Your task to perform on an android device: open app "Google Translate" (install if not already installed) Image 0: 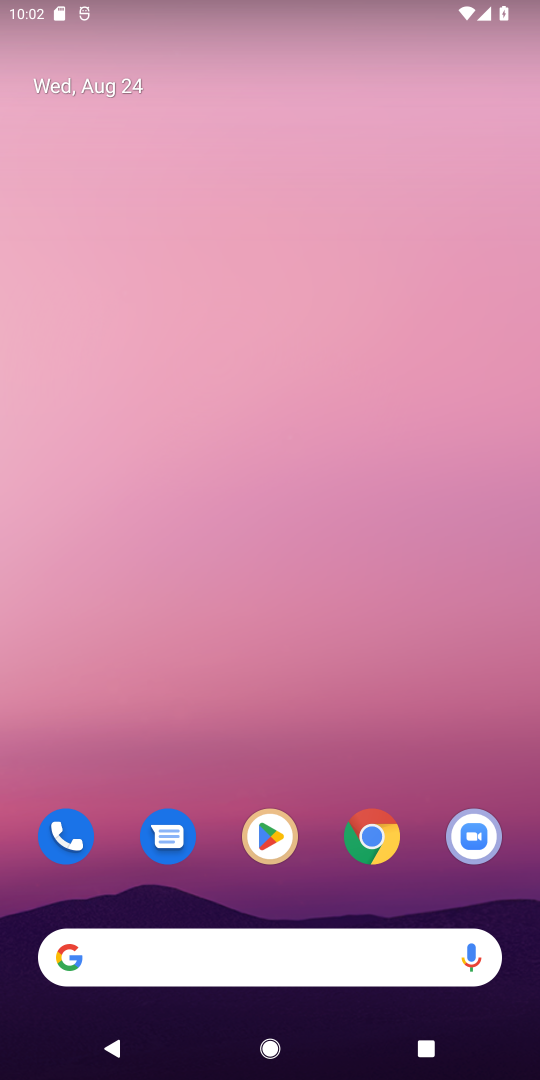
Step 0: click (274, 847)
Your task to perform on an android device: open app "Google Translate" (install if not already installed) Image 1: 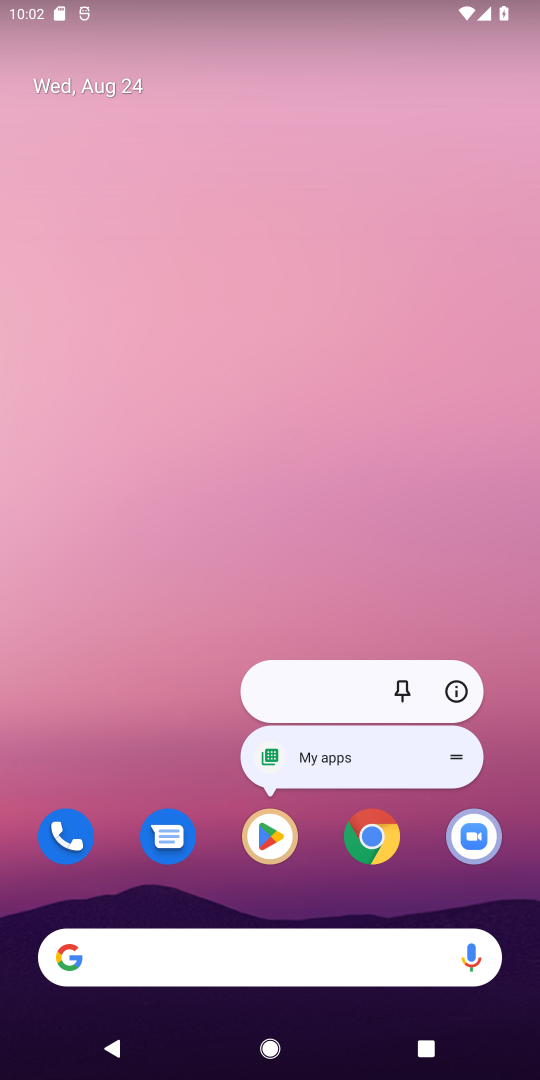
Step 1: click (274, 847)
Your task to perform on an android device: open app "Google Translate" (install if not already installed) Image 2: 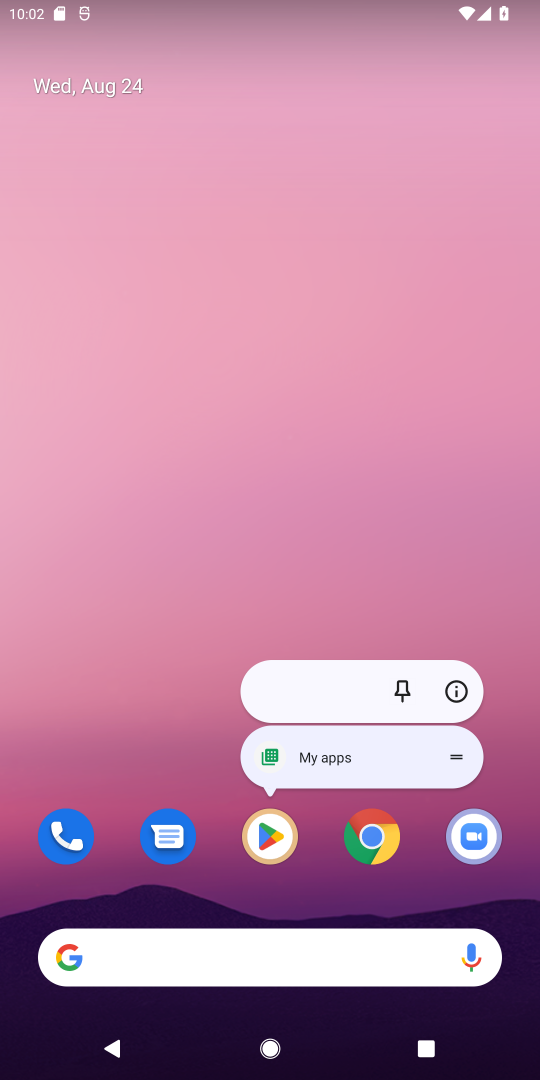
Step 2: click (274, 847)
Your task to perform on an android device: open app "Google Translate" (install if not already installed) Image 3: 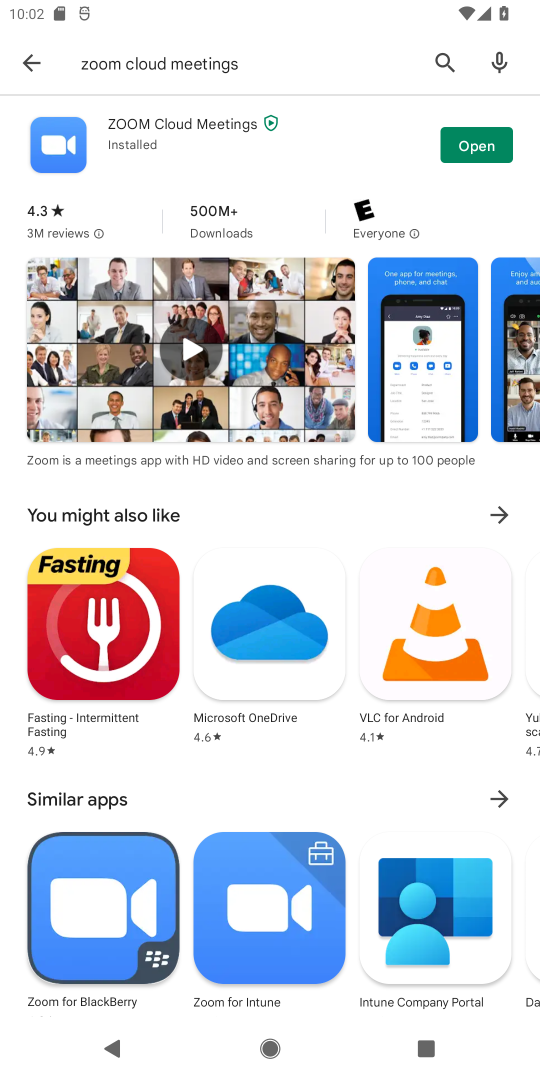
Step 3: click (453, 61)
Your task to perform on an android device: open app "Google Translate" (install if not already installed) Image 4: 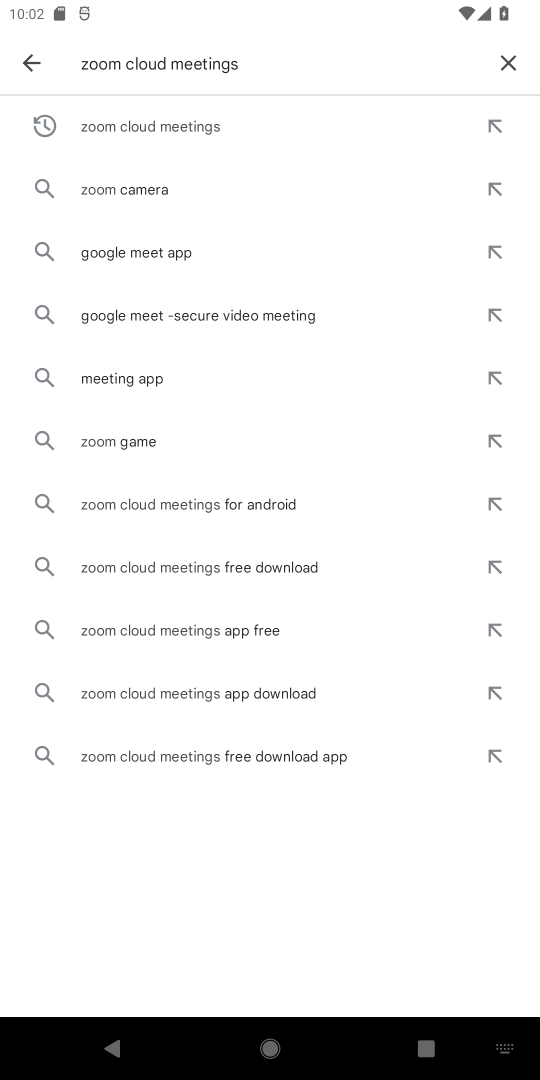
Step 4: click (497, 55)
Your task to perform on an android device: open app "Google Translate" (install if not already installed) Image 5: 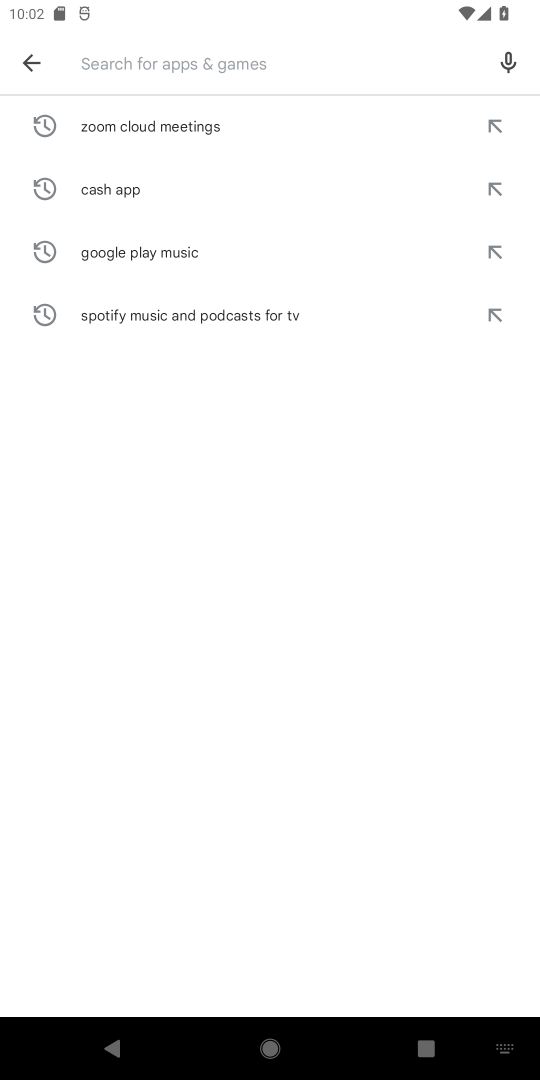
Step 5: type "Google Translate"
Your task to perform on an android device: open app "Google Translate" (install if not already installed) Image 6: 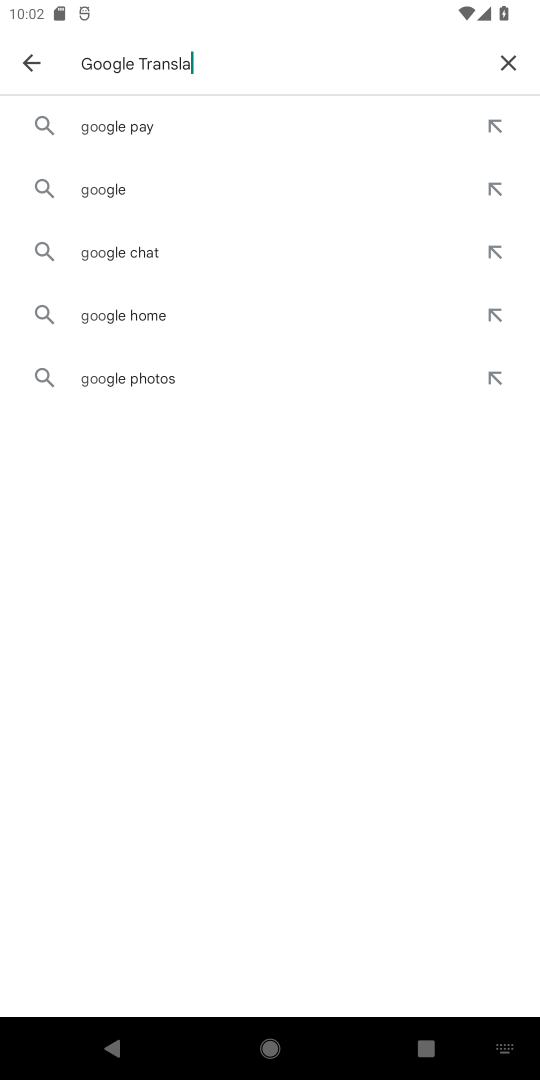
Step 6: type ""
Your task to perform on an android device: open app "Google Translate" (install if not already installed) Image 7: 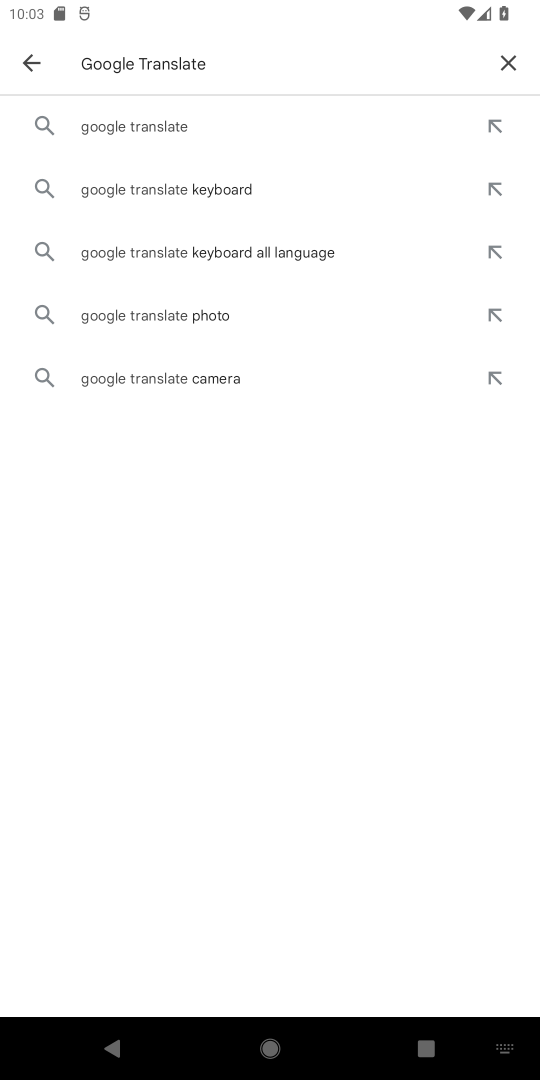
Step 7: click (236, 114)
Your task to perform on an android device: open app "Google Translate" (install if not already installed) Image 8: 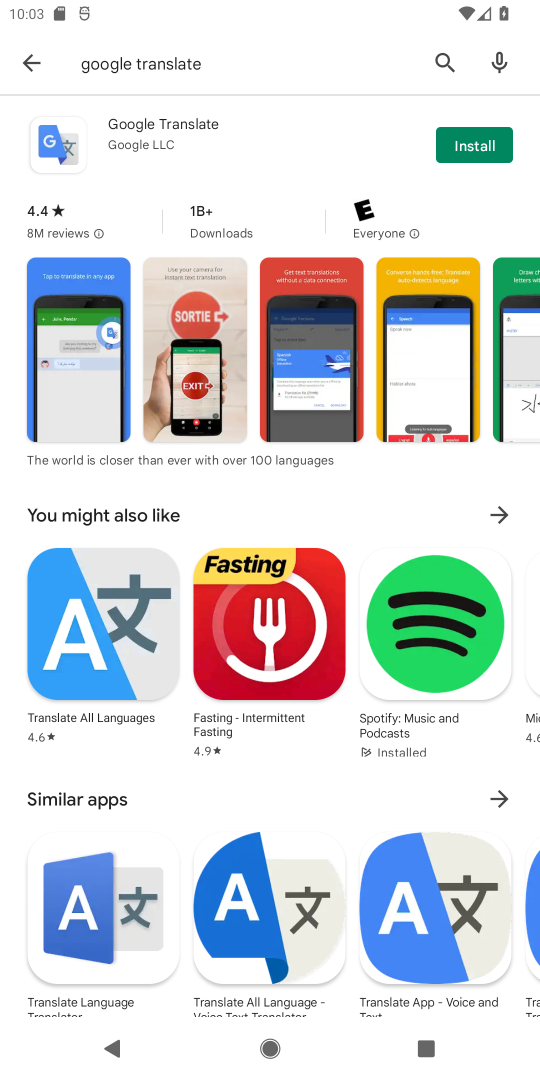
Step 8: click (451, 140)
Your task to perform on an android device: open app "Google Translate" (install if not already installed) Image 9: 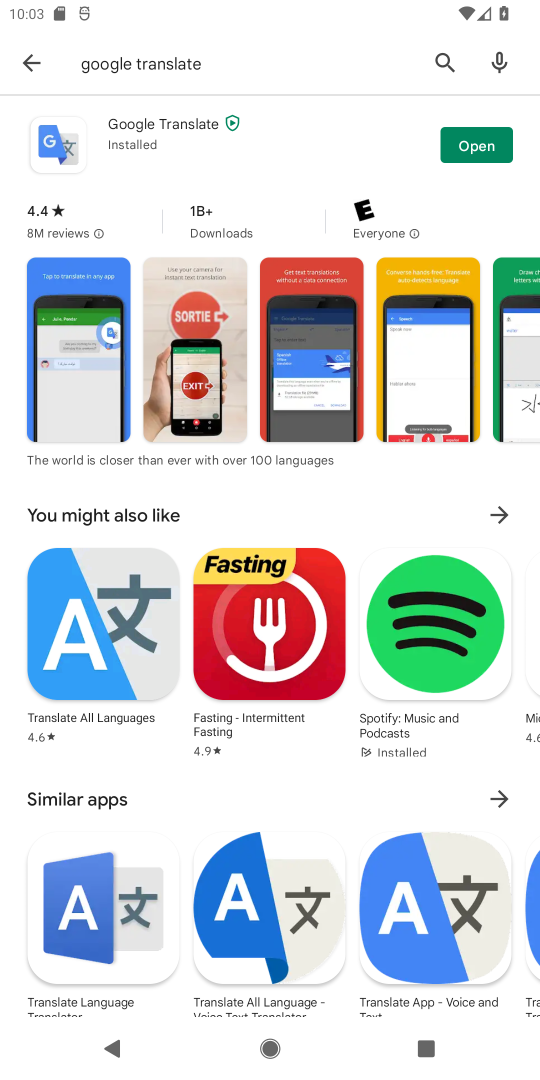
Step 9: click (446, 138)
Your task to perform on an android device: open app "Google Translate" (install if not already installed) Image 10: 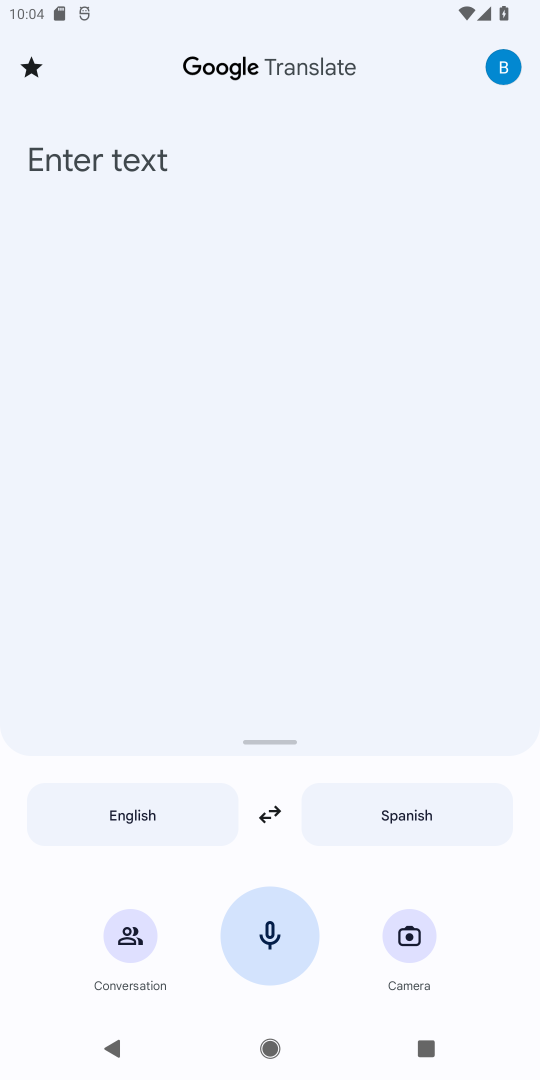
Step 10: task complete